Your task to perform on an android device: Go to Maps Image 0: 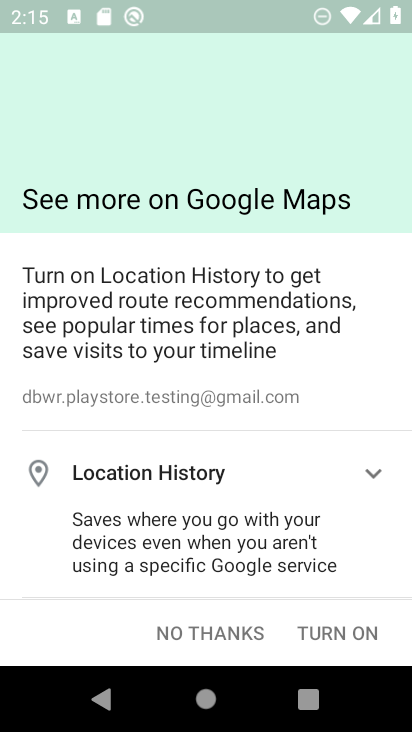
Step 0: press home button
Your task to perform on an android device: Go to Maps Image 1: 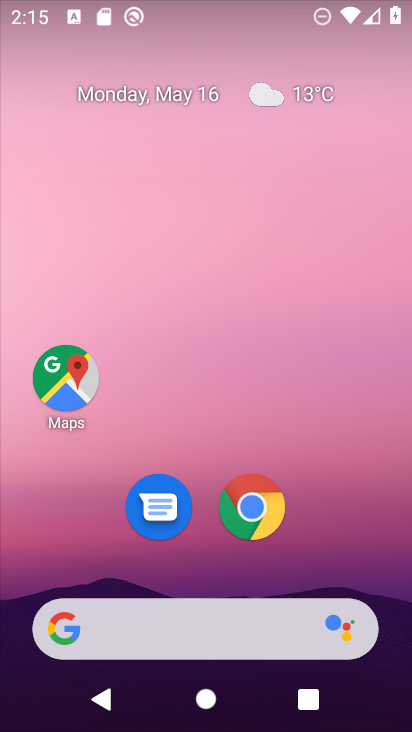
Step 1: drag from (233, 549) to (203, 319)
Your task to perform on an android device: Go to Maps Image 2: 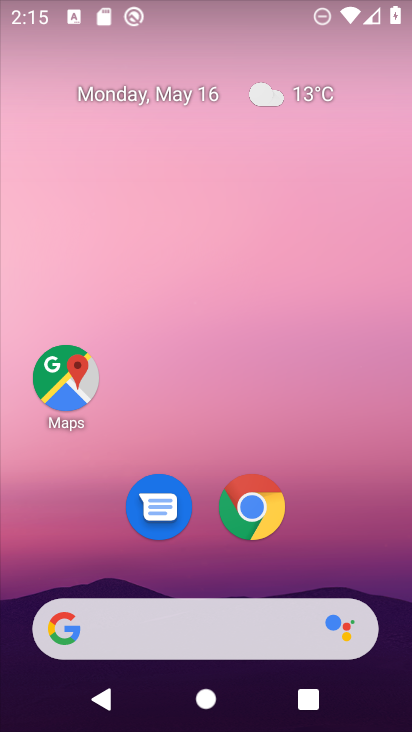
Step 2: drag from (158, 582) to (170, 283)
Your task to perform on an android device: Go to Maps Image 3: 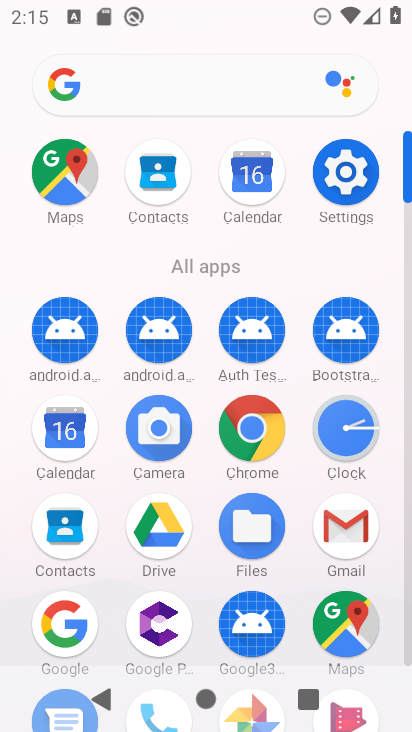
Step 3: click (336, 632)
Your task to perform on an android device: Go to Maps Image 4: 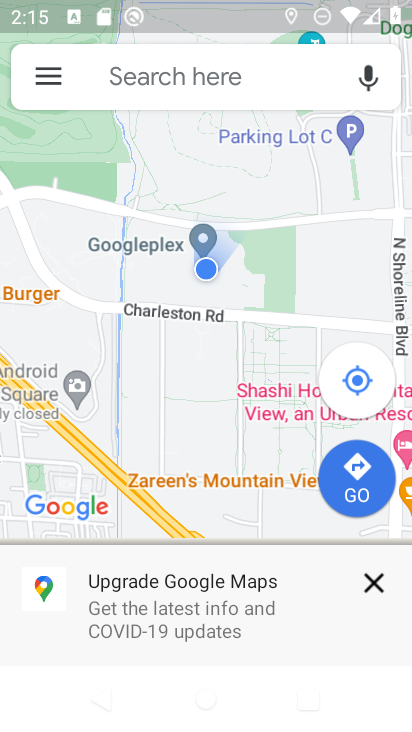
Step 4: click (371, 575)
Your task to perform on an android device: Go to Maps Image 5: 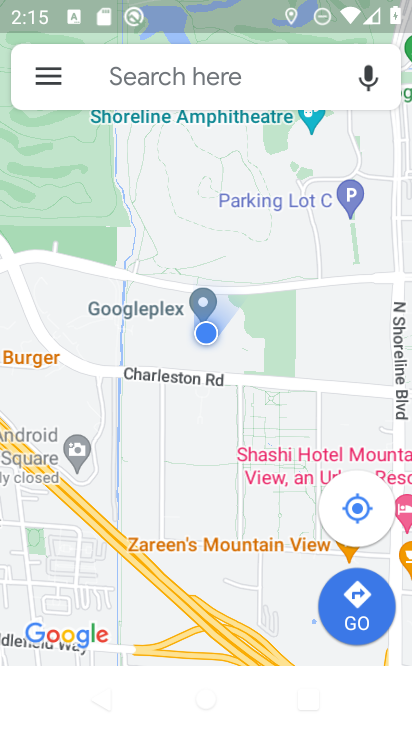
Step 5: task complete